Your task to perform on an android device: add a label to a message in the gmail app Image 0: 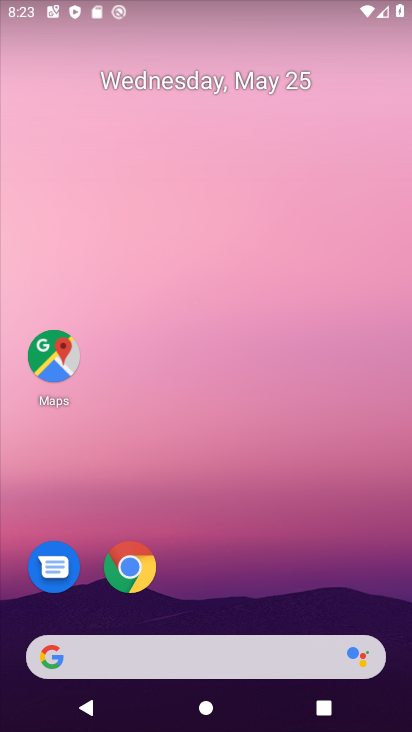
Step 0: drag from (258, 554) to (288, 41)
Your task to perform on an android device: add a label to a message in the gmail app Image 1: 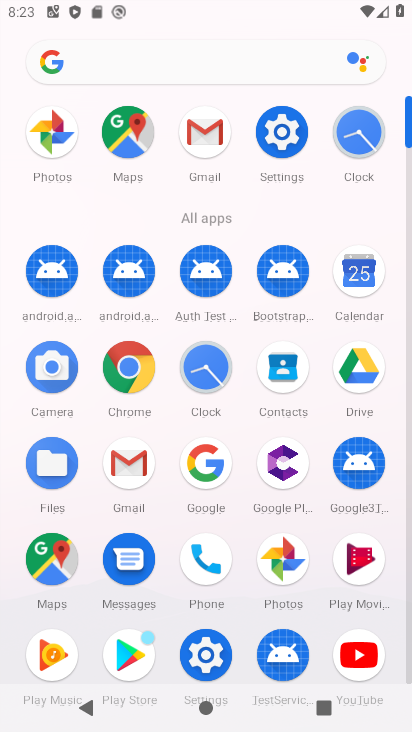
Step 1: click (211, 134)
Your task to perform on an android device: add a label to a message in the gmail app Image 2: 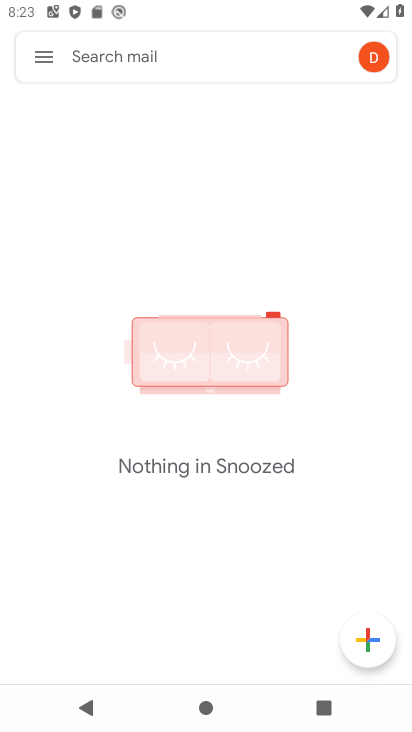
Step 2: click (33, 46)
Your task to perform on an android device: add a label to a message in the gmail app Image 3: 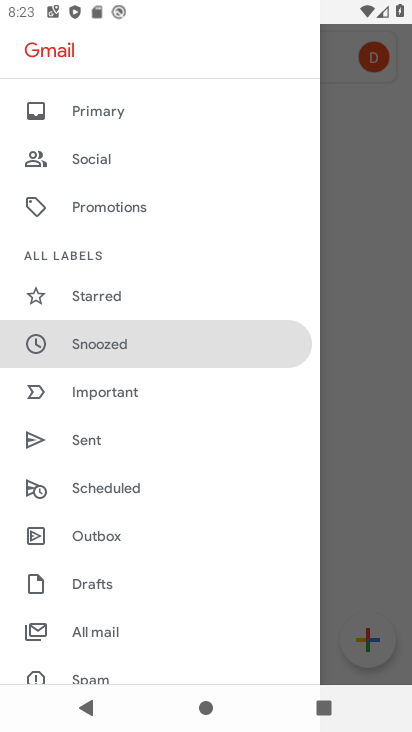
Step 3: click (79, 625)
Your task to perform on an android device: add a label to a message in the gmail app Image 4: 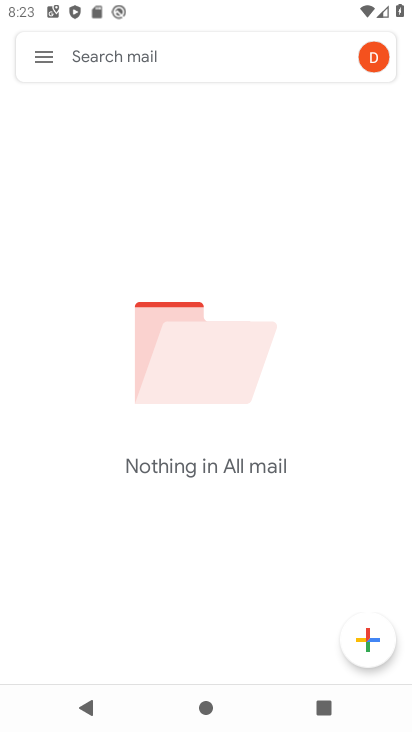
Step 4: task complete